Your task to perform on an android device: Open my contact list Image 0: 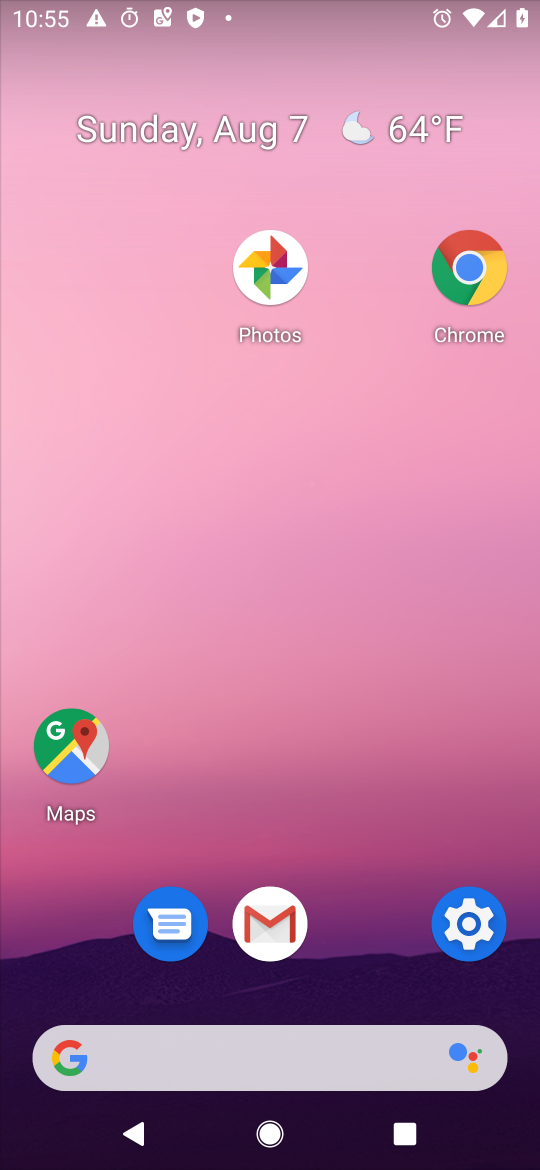
Step 0: press home button
Your task to perform on an android device: Open my contact list Image 1: 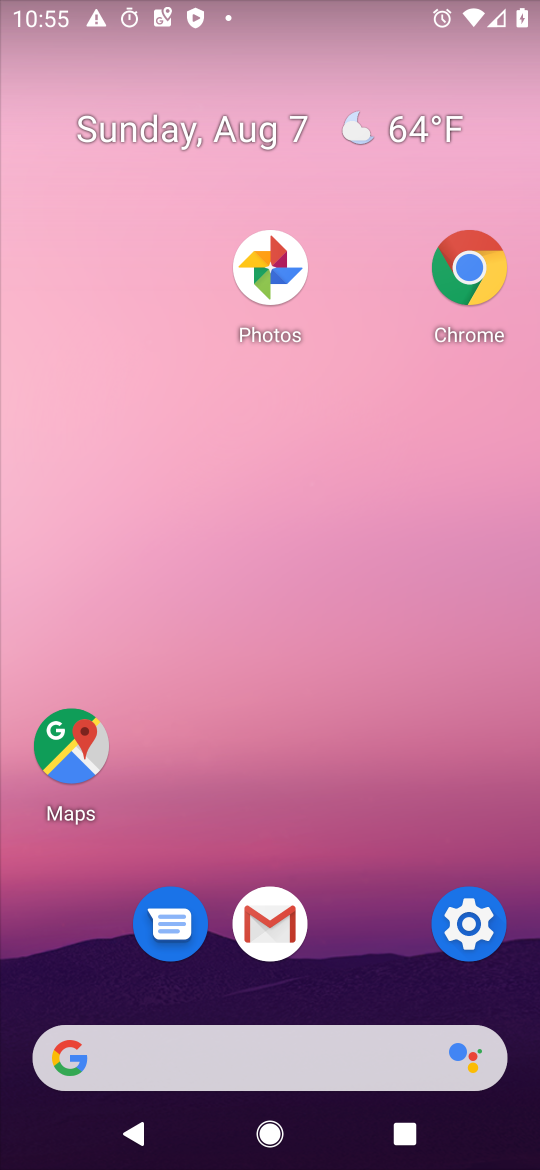
Step 1: drag from (330, 1113) to (141, 190)
Your task to perform on an android device: Open my contact list Image 2: 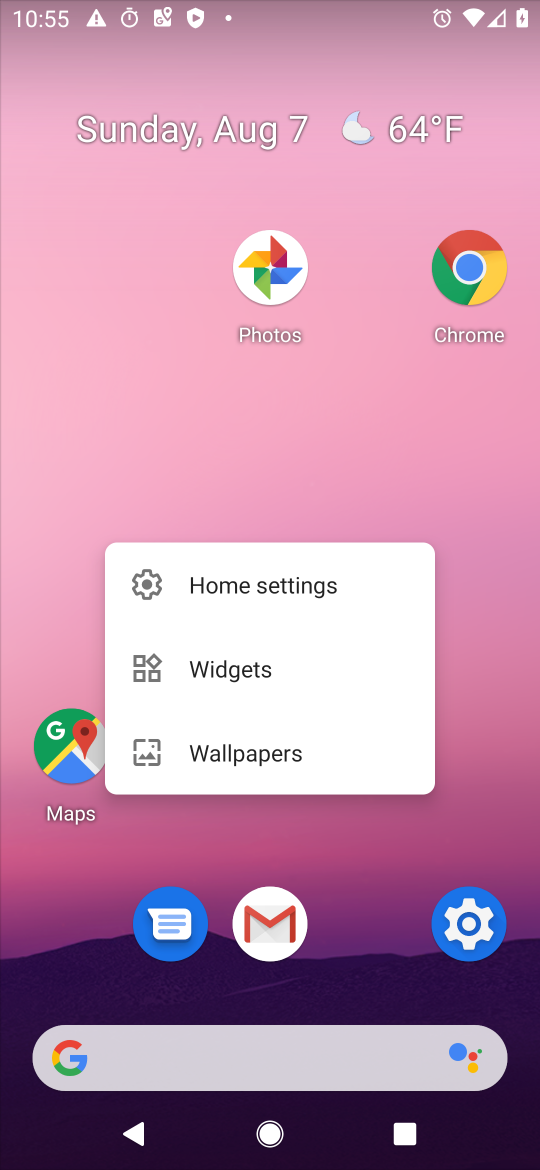
Step 2: click (141, 190)
Your task to perform on an android device: Open my contact list Image 3: 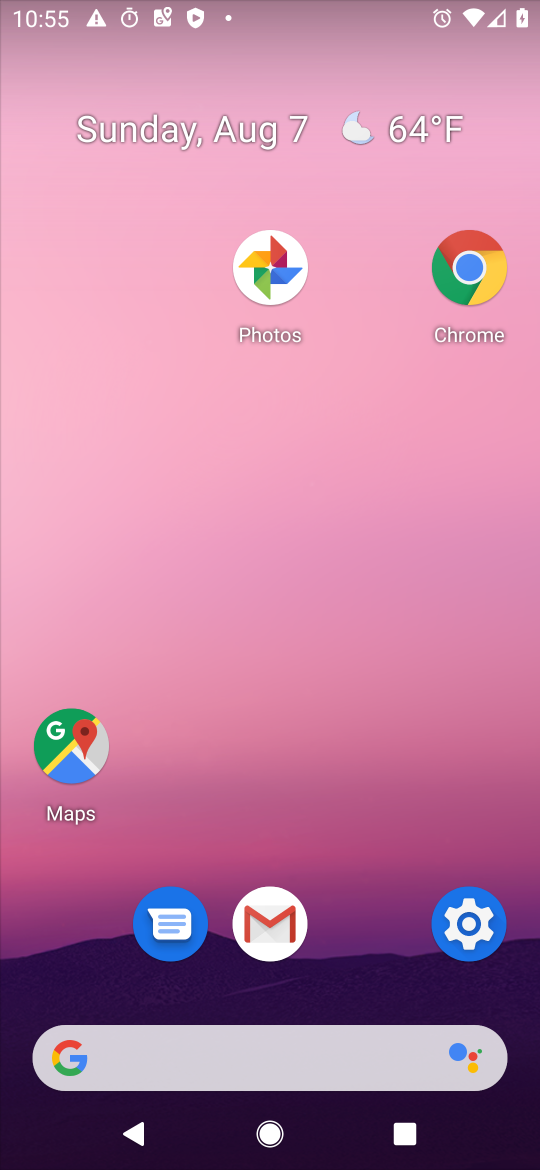
Step 3: drag from (330, 1098) to (331, 584)
Your task to perform on an android device: Open my contact list Image 4: 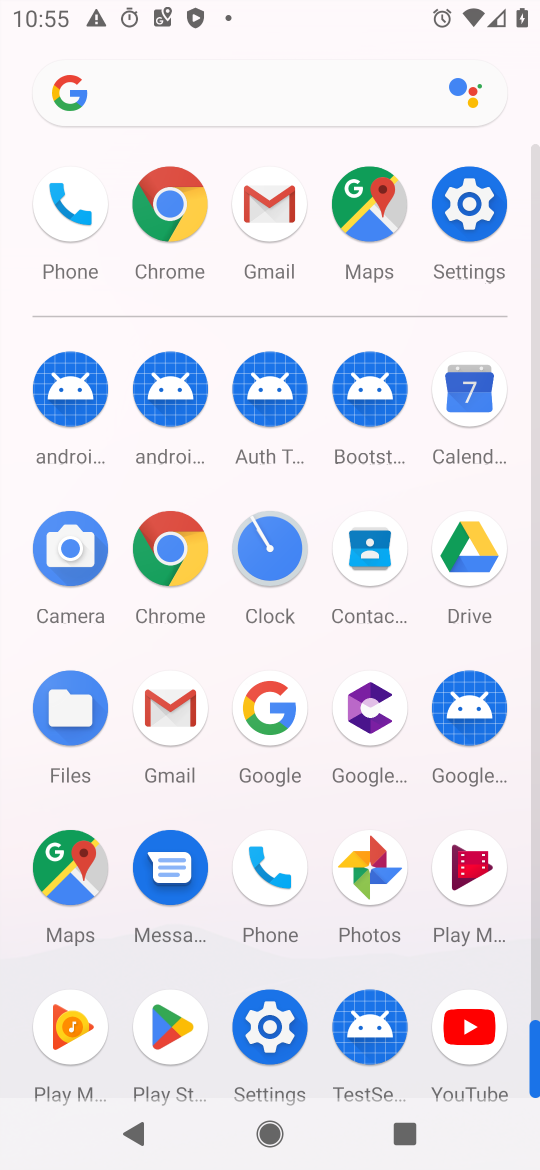
Step 4: click (57, 214)
Your task to perform on an android device: Open my contact list Image 5: 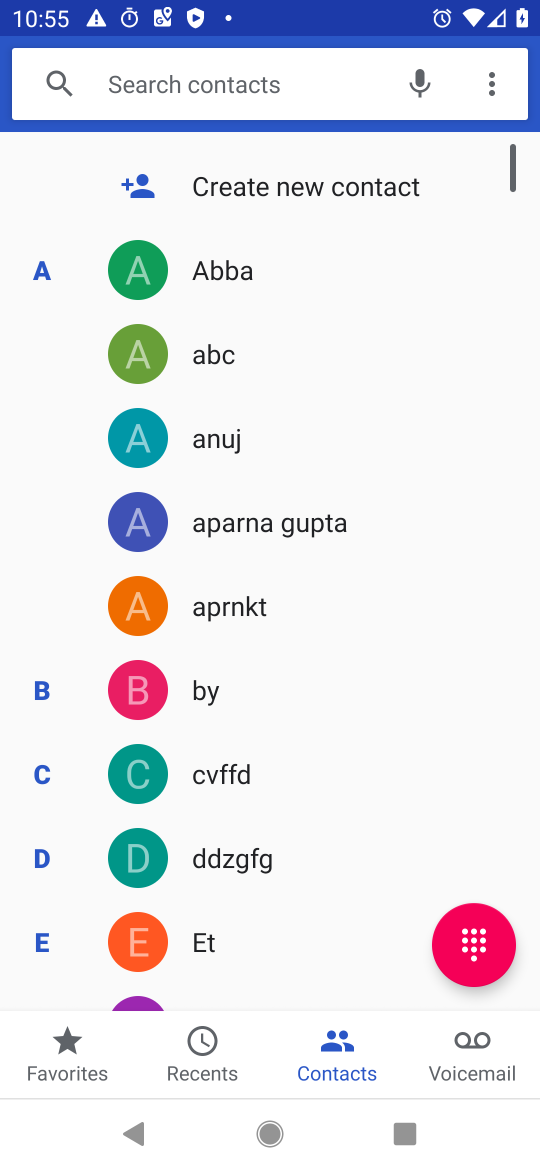
Step 5: task complete